Your task to perform on an android device: Search for "alienware area 51" on amazon, select the first entry, and add it to the cart. Image 0: 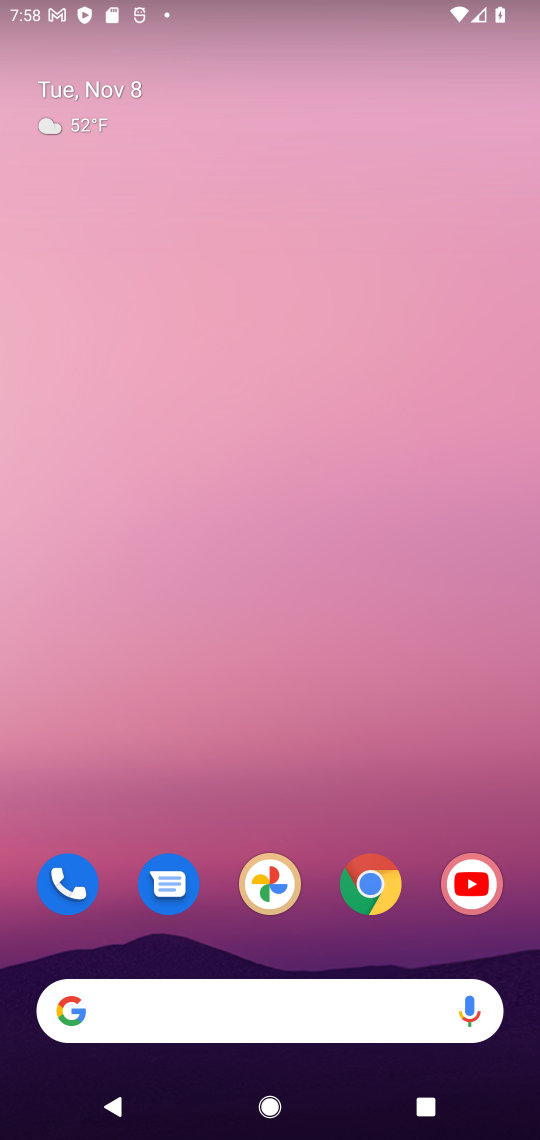
Step 0: drag from (307, 899) to (454, 119)
Your task to perform on an android device: Search for "alienware area 51" on amazon, select the first entry, and add it to the cart. Image 1: 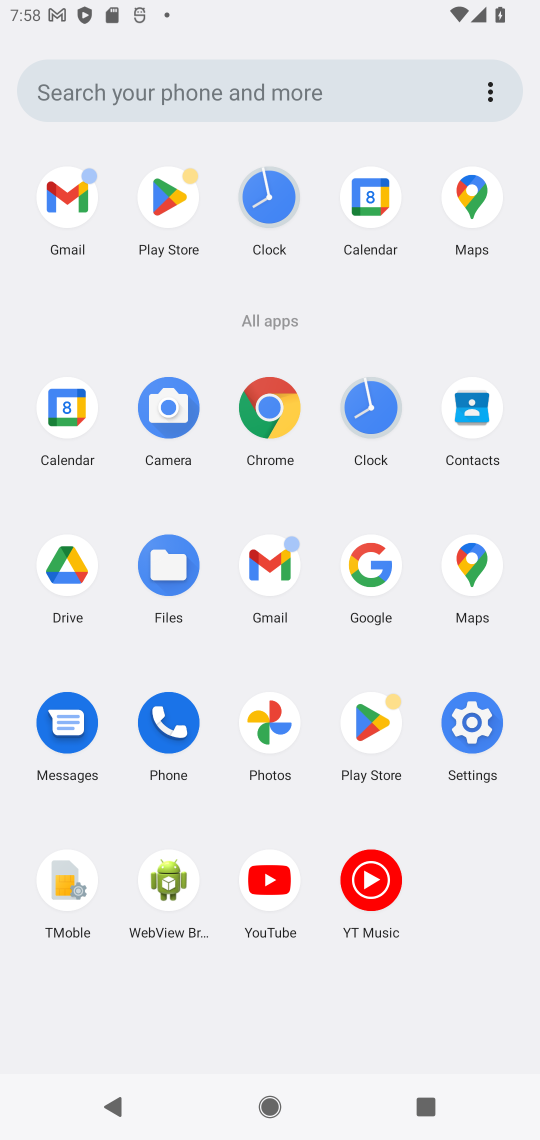
Step 1: click (353, 603)
Your task to perform on an android device: Search for "alienware area 51" on amazon, select the first entry, and add it to the cart. Image 2: 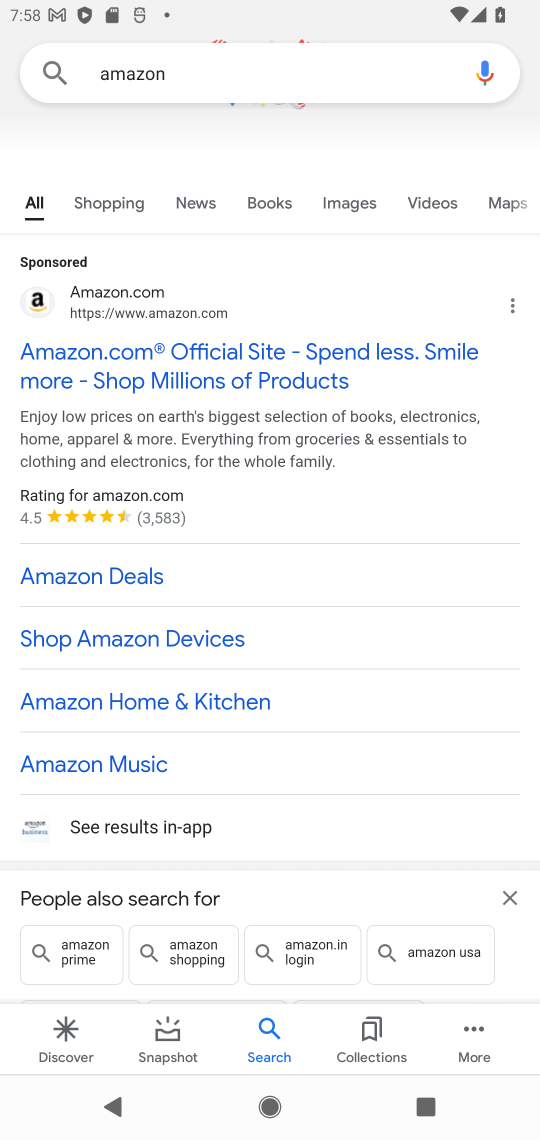
Step 2: click (267, 361)
Your task to perform on an android device: Search for "alienware area 51" on amazon, select the first entry, and add it to the cart. Image 3: 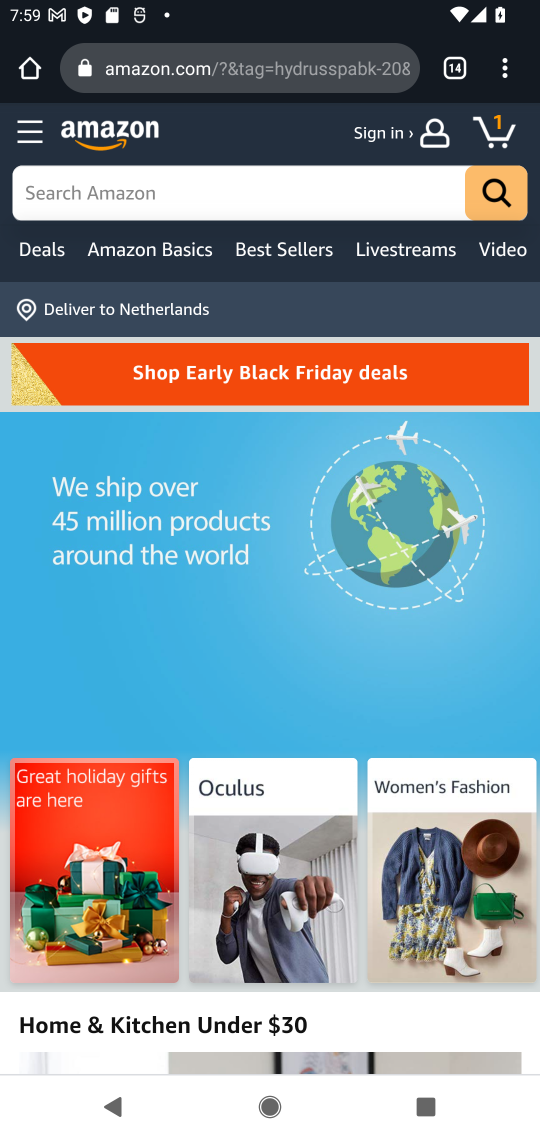
Step 3: click (301, 188)
Your task to perform on an android device: Search for "alienware area 51" on amazon, select the first entry, and add it to the cart. Image 4: 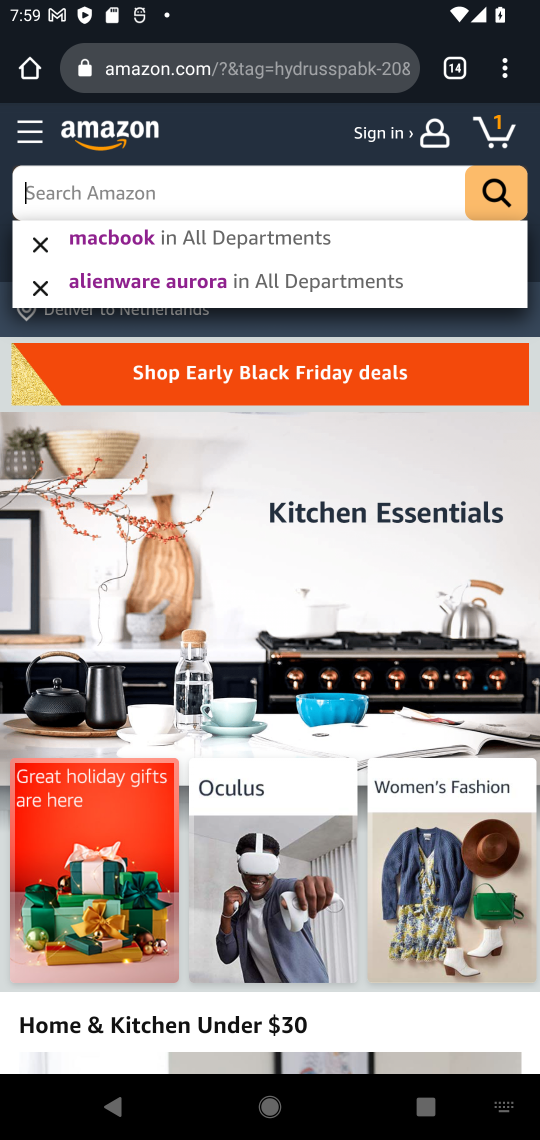
Step 4: type "alienware area 51"
Your task to perform on an android device: Search for "alienware area 51" on amazon, select the first entry, and add it to the cart. Image 5: 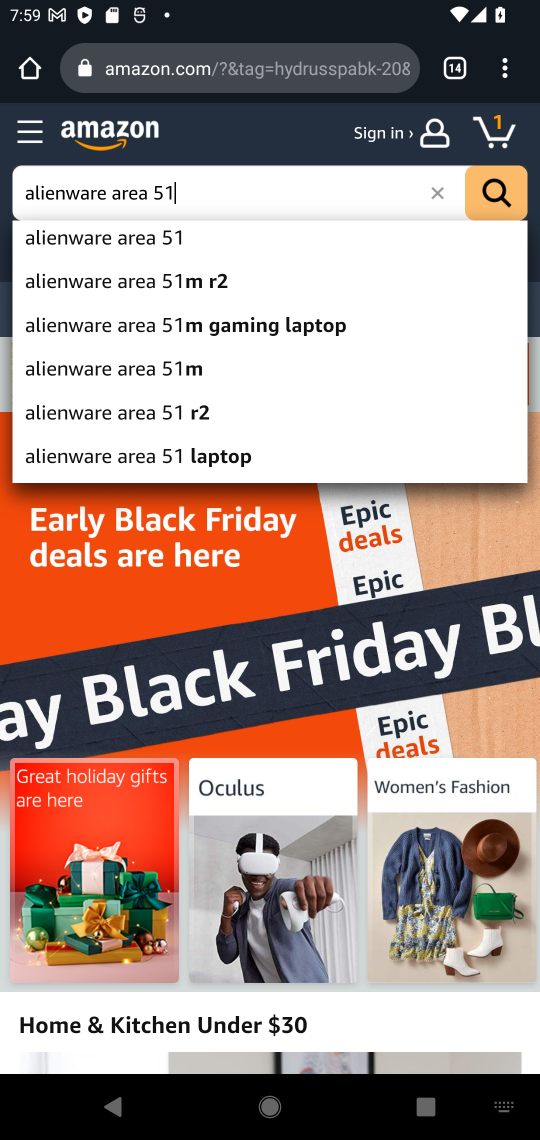
Step 5: click (324, 236)
Your task to perform on an android device: Search for "alienware area 51" on amazon, select the first entry, and add it to the cart. Image 6: 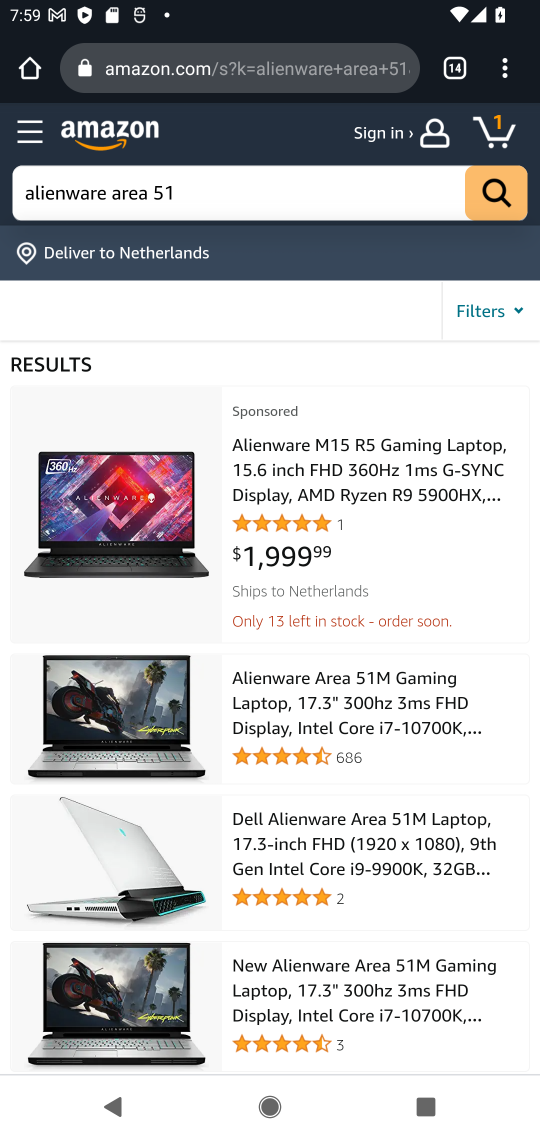
Step 6: click (352, 482)
Your task to perform on an android device: Search for "alienware area 51" on amazon, select the first entry, and add it to the cart. Image 7: 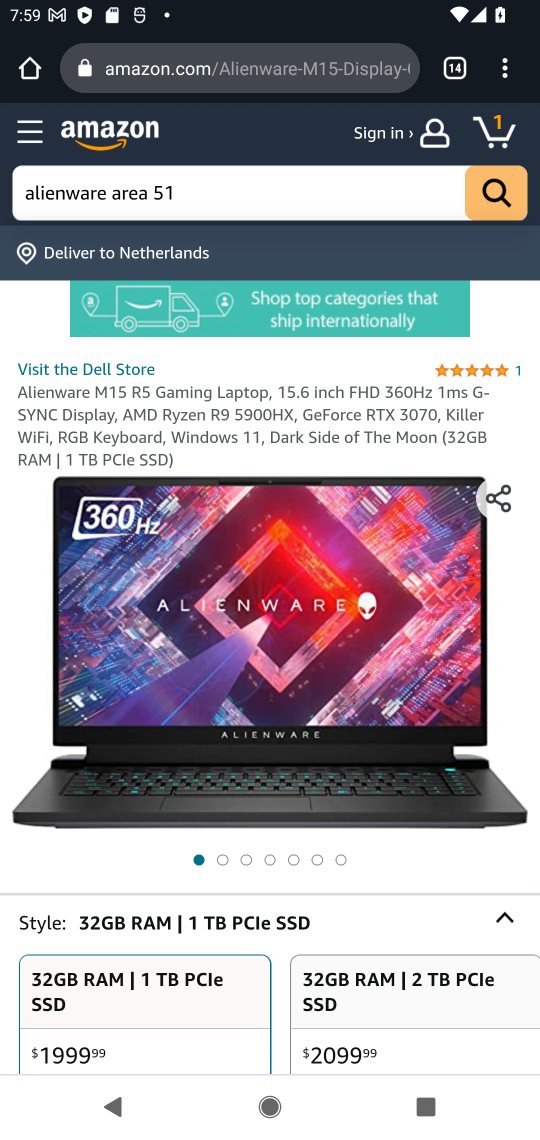
Step 7: drag from (310, 935) to (352, 650)
Your task to perform on an android device: Search for "alienware area 51" on amazon, select the first entry, and add it to the cart. Image 8: 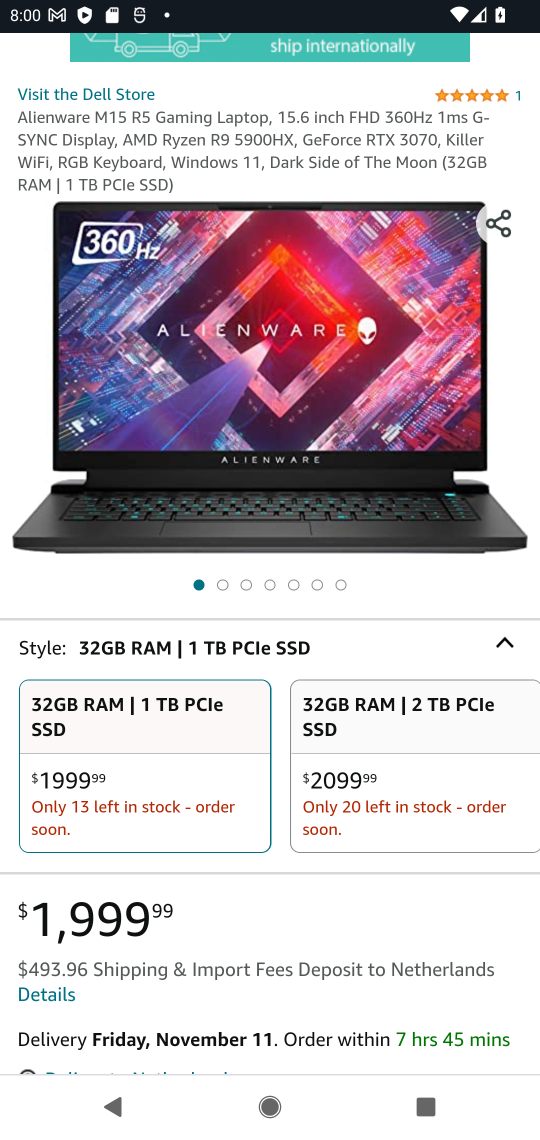
Step 8: drag from (361, 904) to (365, 449)
Your task to perform on an android device: Search for "alienware area 51" on amazon, select the first entry, and add it to the cart. Image 9: 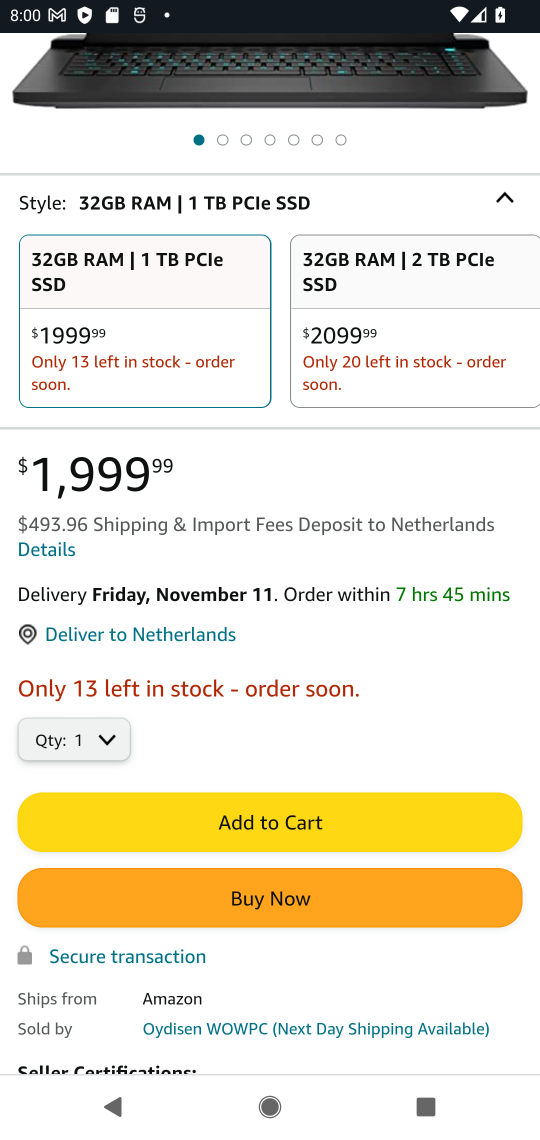
Step 9: click (333, 816)
Your task to perform on an android device: Search for "alienware area 51" on amazon, select the first entry, and add it to the cart. Image 10: 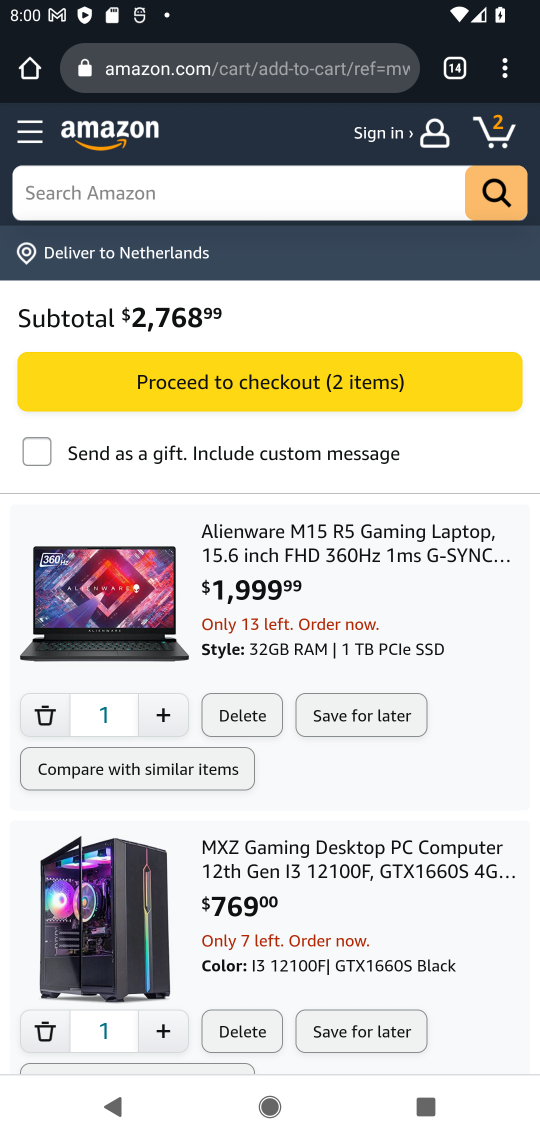
Step 10: task complete